Your task to perform on an android device: Open calendar and show me the first week of next month Image 0: 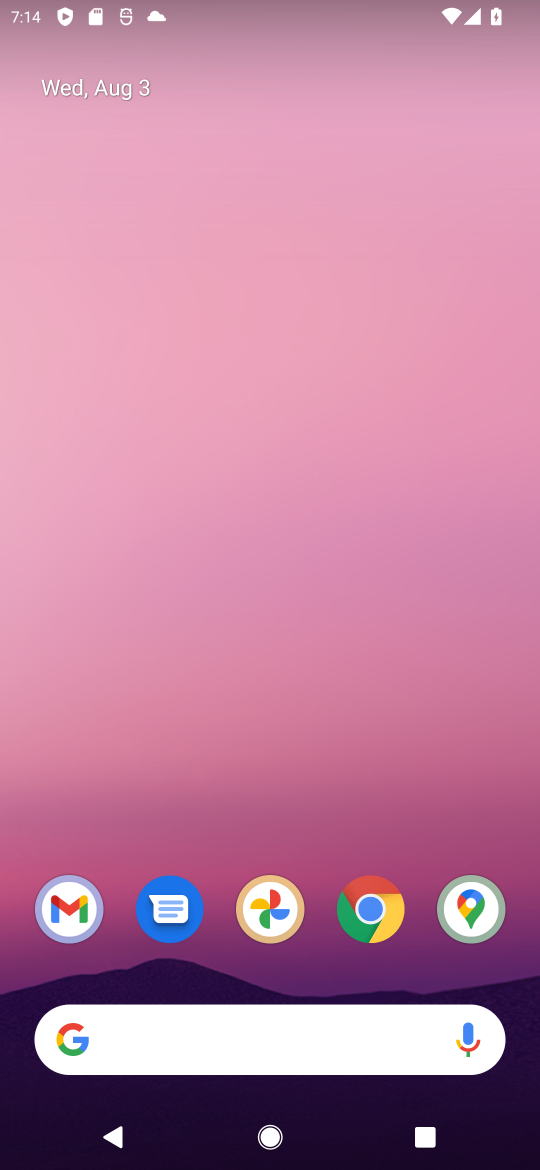
Step 0: drag from (331, 845) to (352, 122)
Your task to perform on an android device: Open calendar and show me the first week of next month Image 1: 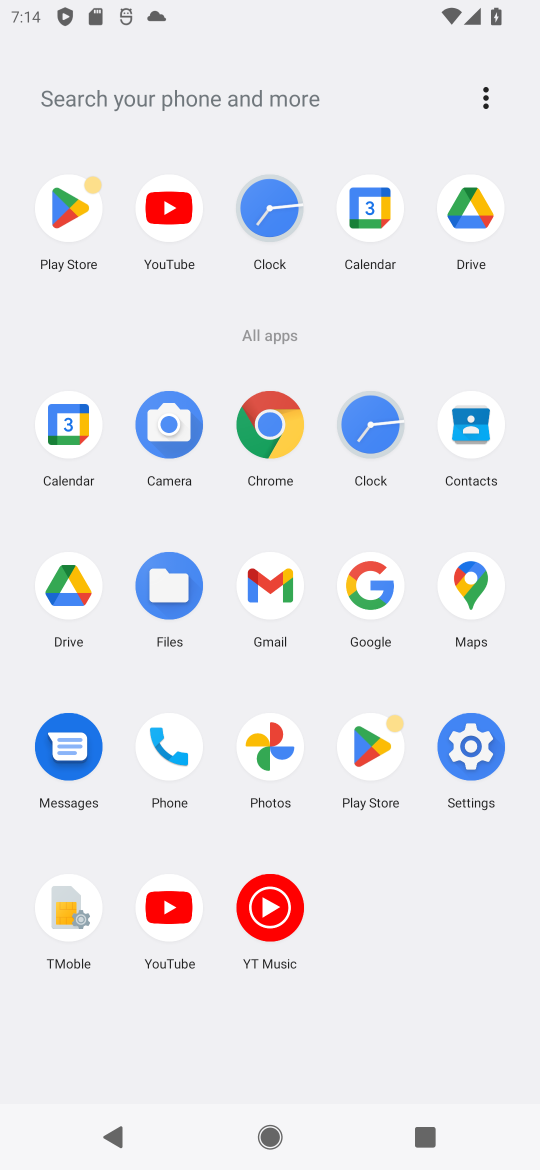
Step 1: click (65, 432)
Your task to perform on an android device: Open calendar and show me the first week of next month Image 2: 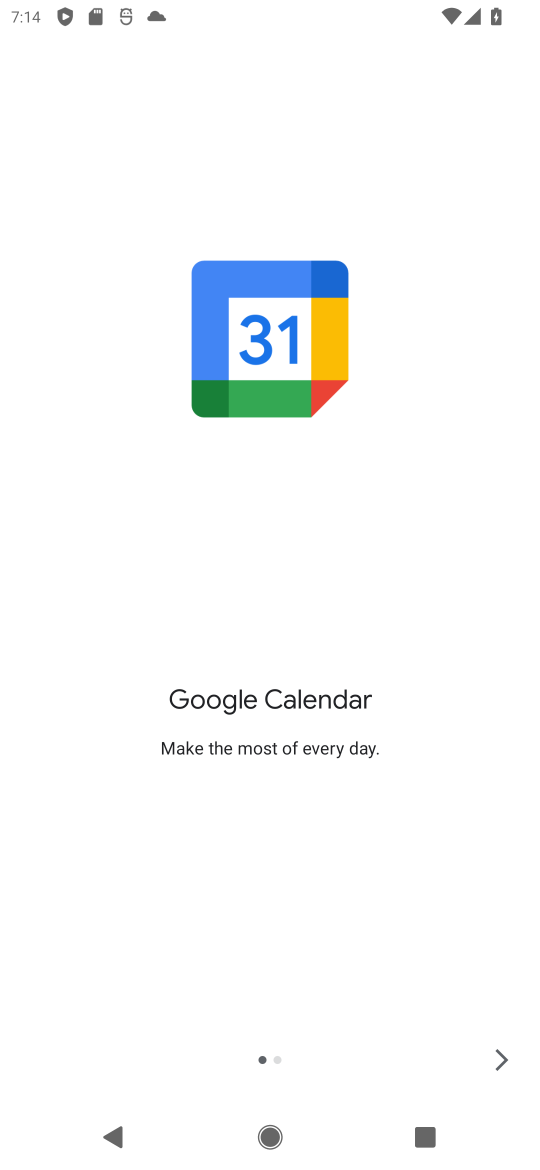
Step 2: click (486, 1063)
Your task to perform on an android device: Open calendar and show me the first week of next month Image 3: 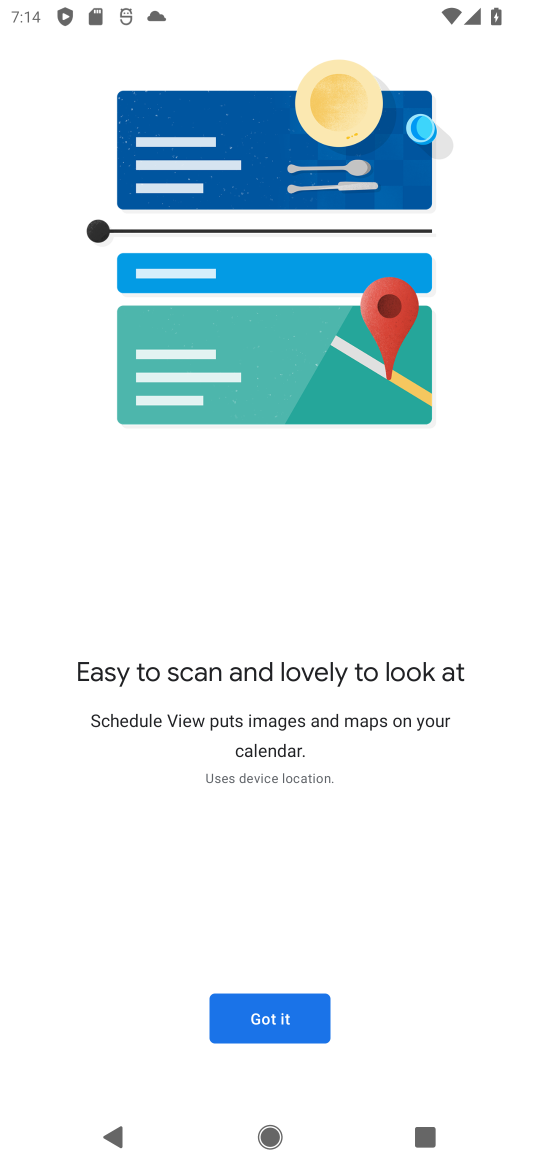
Step 3: click (288, 1020)
Your task to perform on an android device: Open calendar and show me the first week of next month Image 4: 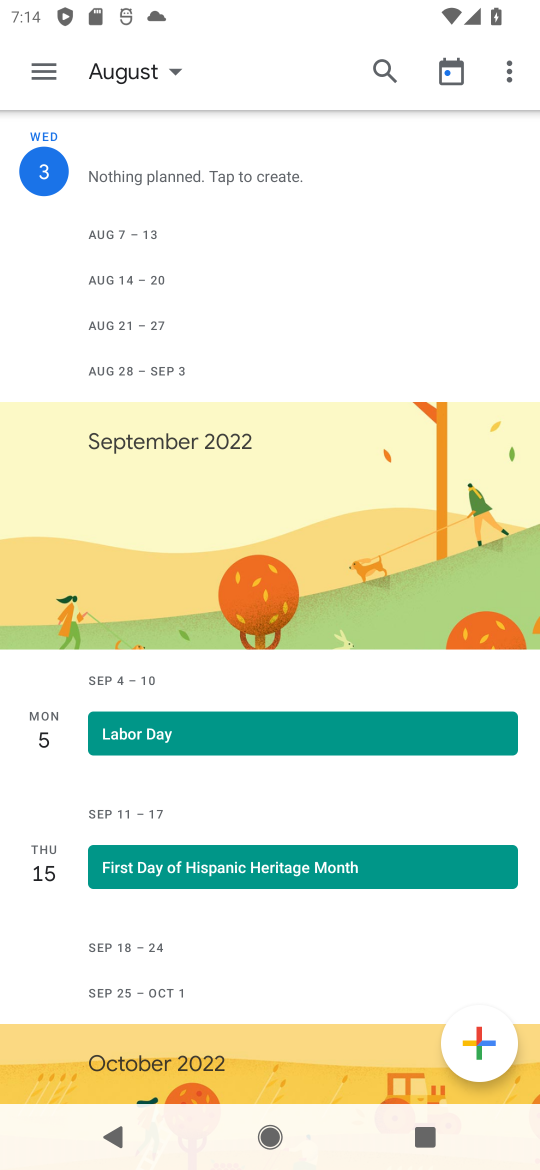
Step 4: click (177, 68)
Your task to perform on an android device: Open calendar and show me the first week of next month Image 5: 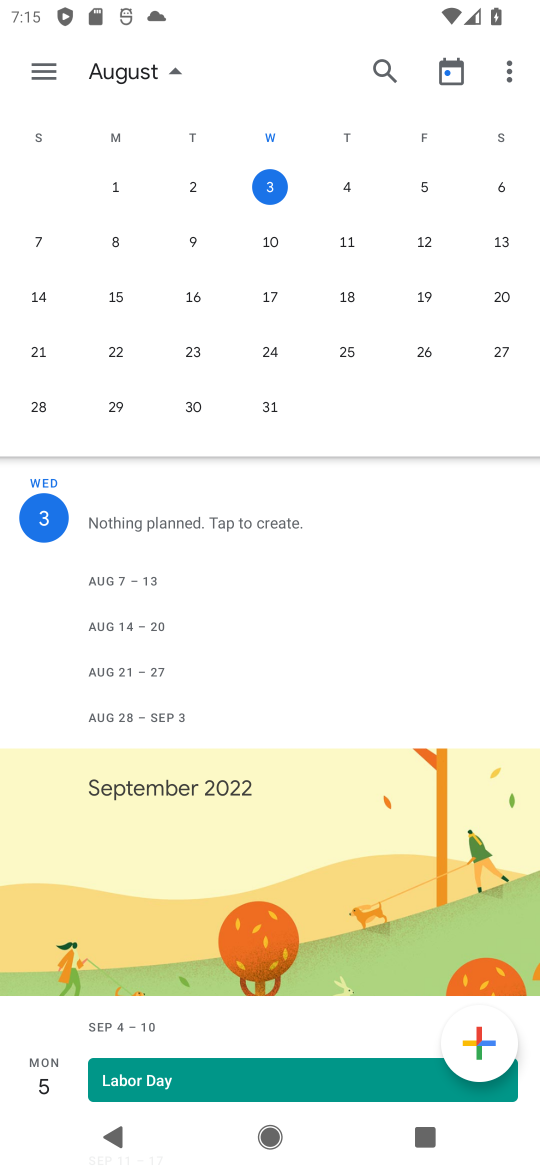
Step 5: task complete